Your task to perform on an android device: visit the assistant section in the google photos Image 0: 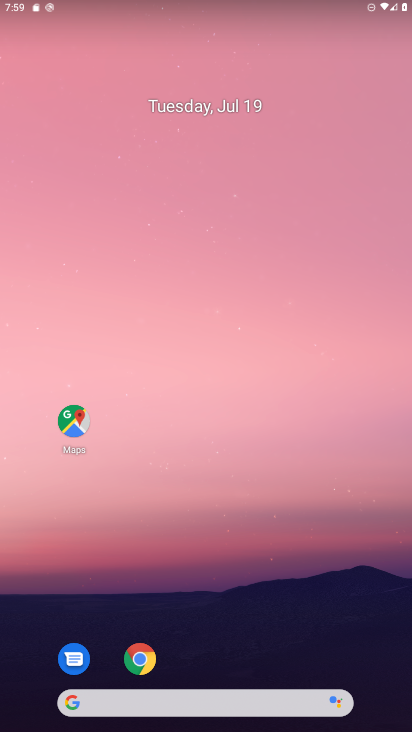
Step 0: drag from (179, 650) to (227, 176)
Your task to perform on an android device: visit the assistant section in the google photos Image 1: 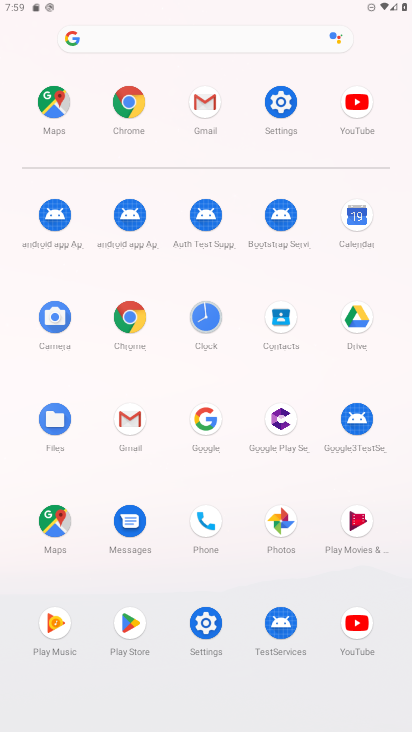
Step 1: click (270, 523)
Your task to perform on an android device: visit the assistant section in the google photos Image 2: 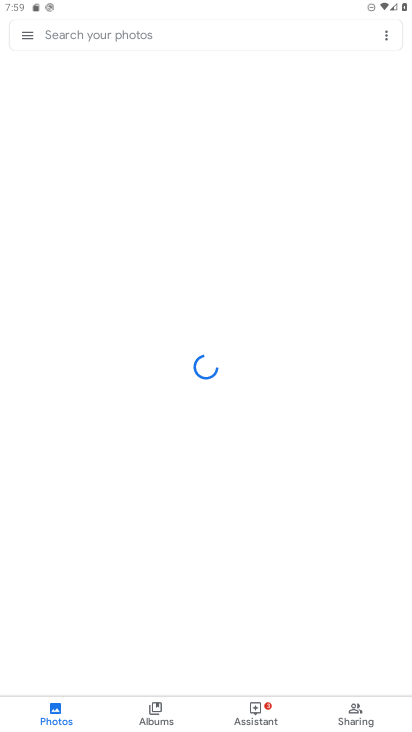
Step 2: click (252, 711)
Your task to perform on an android device: visit the assistant section in the google photos Image 3: 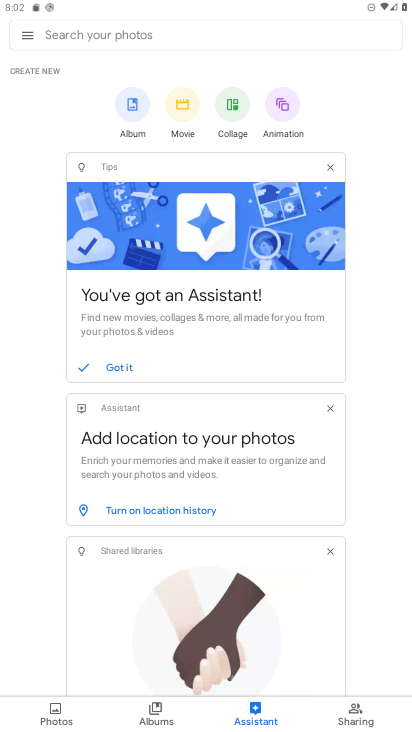
Step 3: task complete